Your task to perform on an android device: Show me productivity apps on the Play Store Image 0: 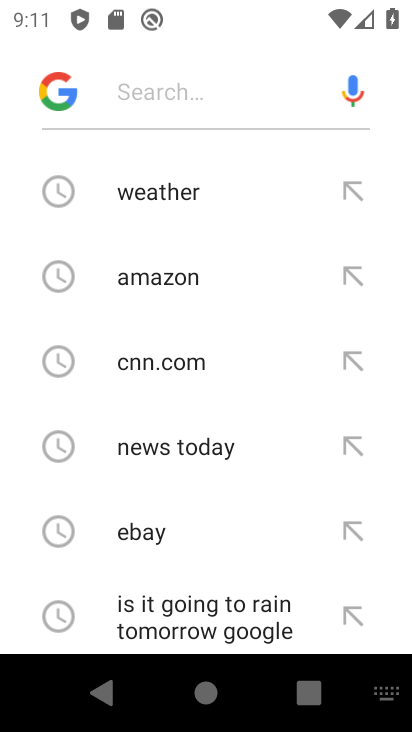
Step 0: press home button
Your task to perform on an android device: Show me productivity apps on the Play Store Image 1: 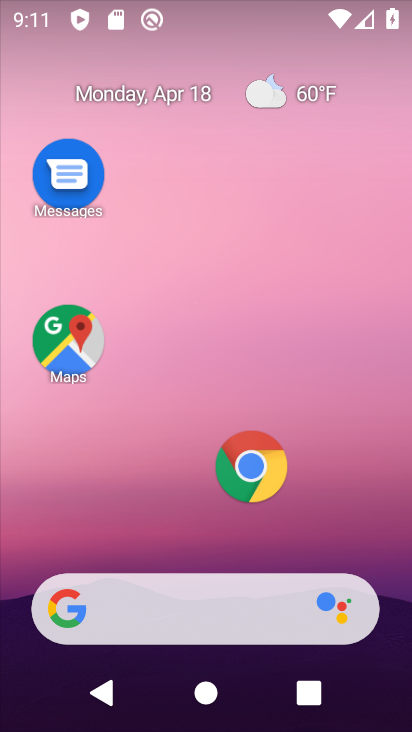
Step 1: drag from (183, 536) to (200, 12)
Your task to perform on an android device: Show me productivity apps on the Play Store Image 2: 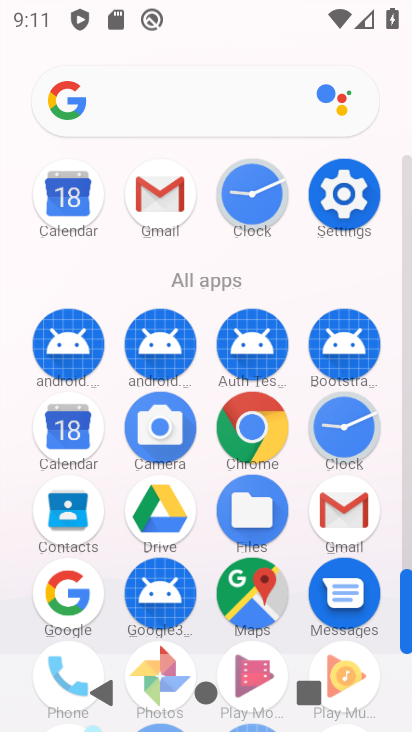
Step 2: drag from (213, 543) to (213, 214)
Your task to perform on an android device: Show me productivity apps on the Play Store Image 3: 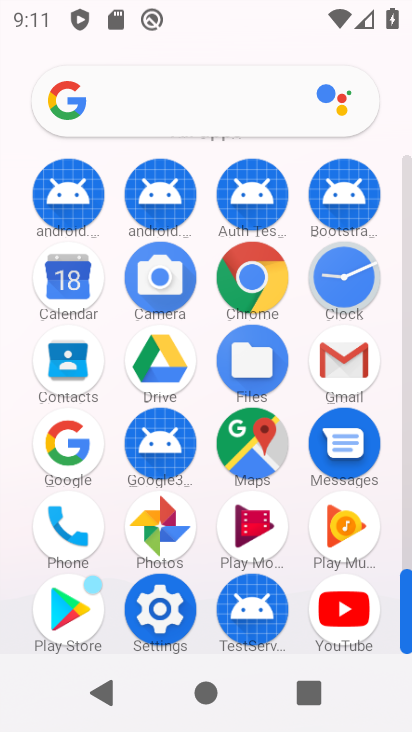
Step 3: click (71, 618)
Your task to perform on an android device: Show me productivity apps on the Play Store Image 4: 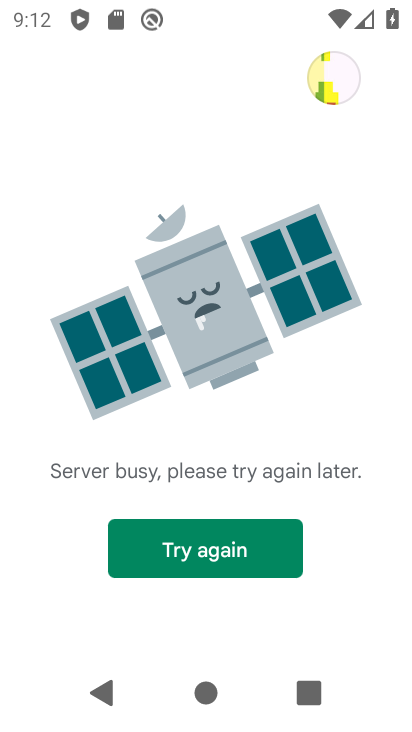
Step 4: click (218, 563)
Your task to perform on an android device: Show me productivity apps on the Play Store Image 5: 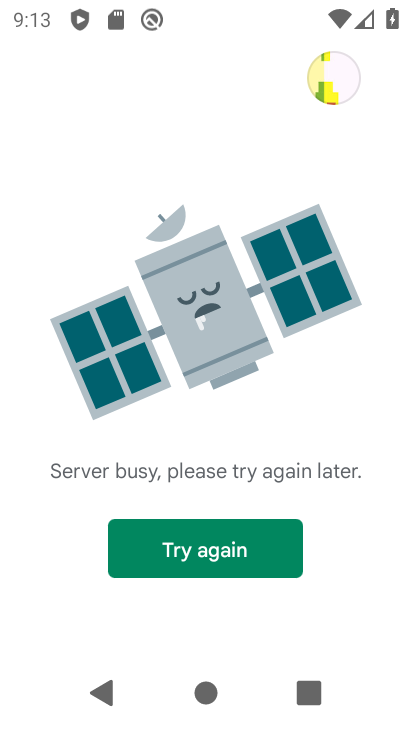
Step 5: task complete